Your task to perform on an android device: create a new album in the google photos Image 0: 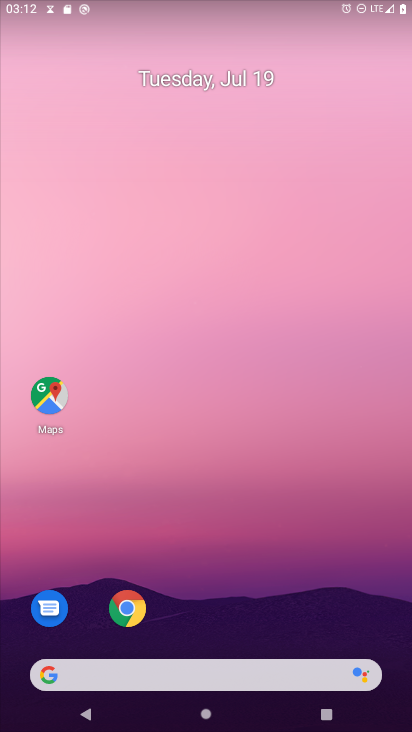
Step 0: drag from (274, 672) to (333, 65)
Your task to perform on an android device: create a new album in the google photos Image 1: 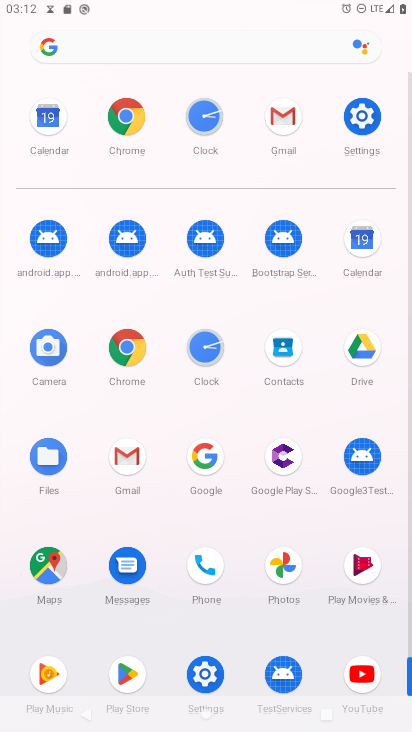
Step 1: click (291, 573)
Your task to perform on an android device: create a new album in the google photos Image 2: 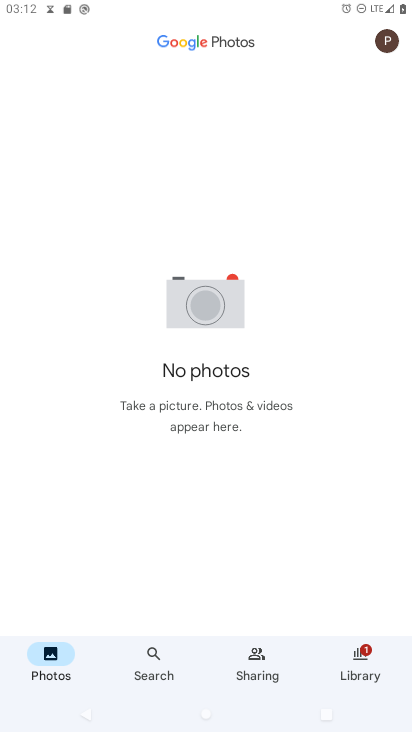
Step 2: task complete